Your task to perform on an android device: Open Chrome and go to the settings page Image 0: 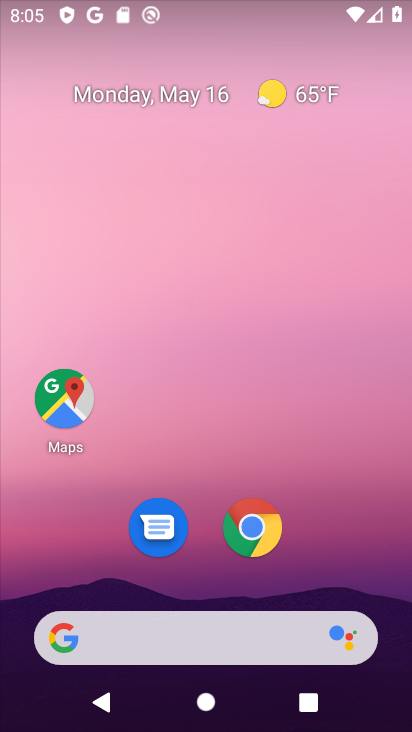
Step 0: drag from (330, 427) to (336, 195)
Your task to perform on an android device: Open Chrome and go to the settings page Image 1: 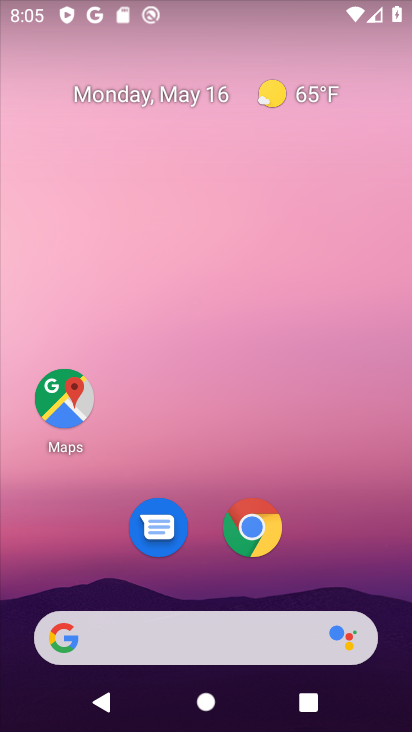
Step 1: drag from (380, 559) to (315, 261)
Your task to perform on an android device: Open Chrome and go to the settings page Image 2: 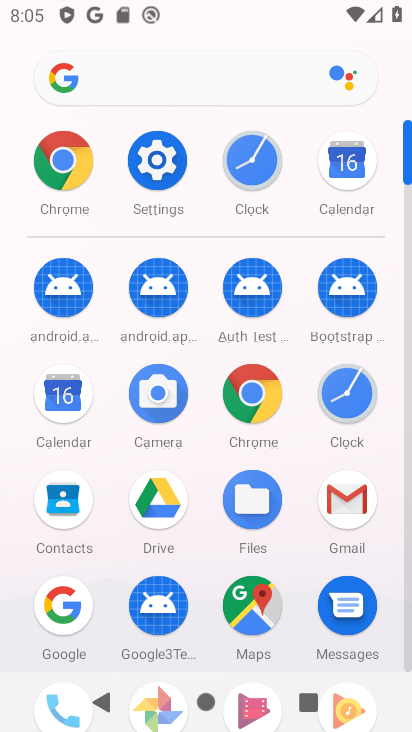
Step 2: click (244, 382)
Your task to perform on an android device: Open Chrome and go to the settings page Image 3: 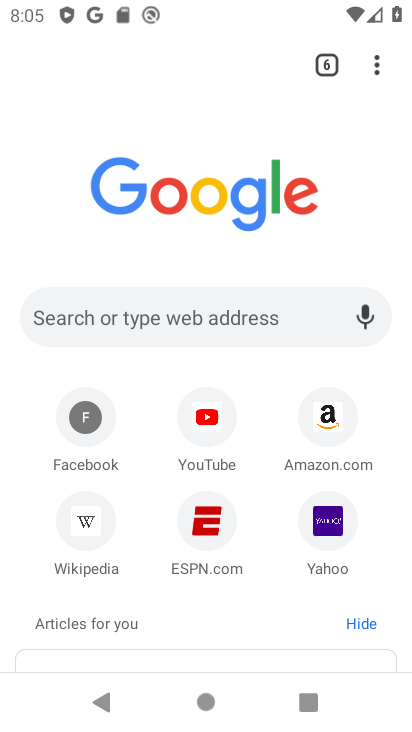
Step 3: click (375, 64)
Your task to perform on an android device: Open Chrome and go to the settings page Image 4: 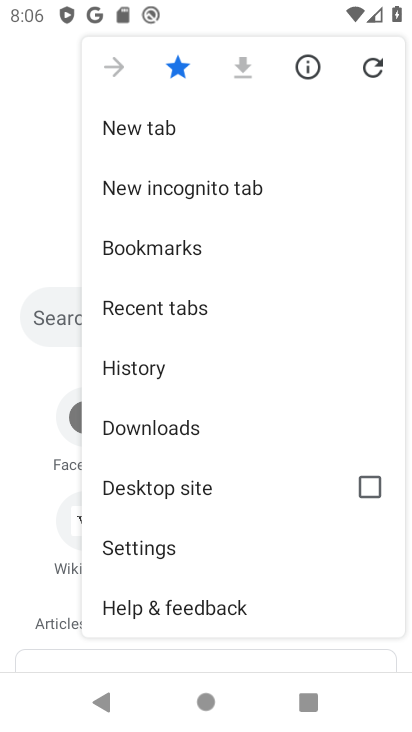
Step 4: click (206, 546)
Your task to perform on an android device: Open Chrome and go to the settings page Image 5: 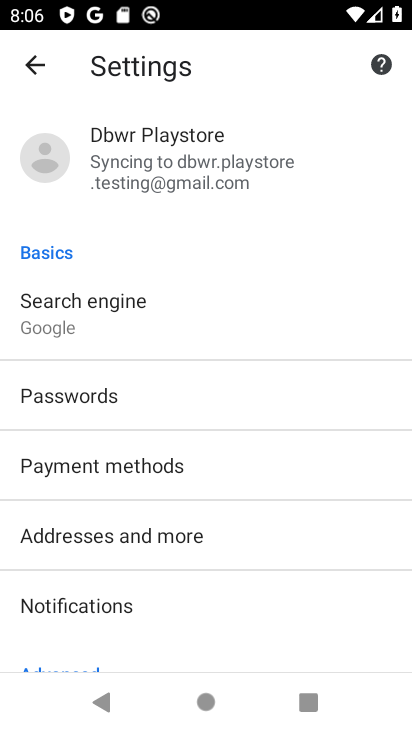
Step 5: task complete